Your task to perform on an android device: turn on notifications settings in the gmail app Image 0: 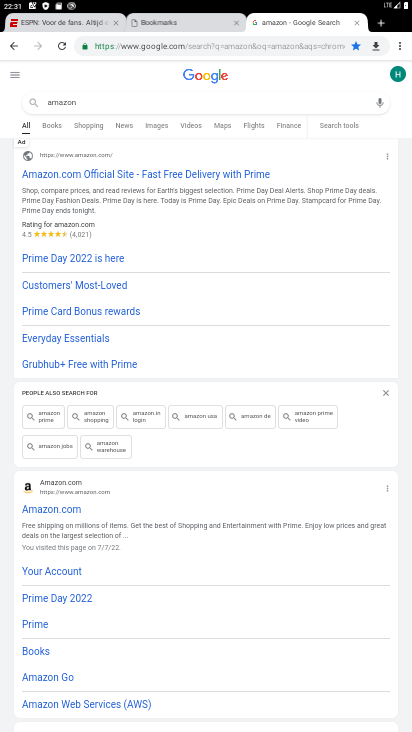
Step 0: drag from (224, 499) to (277, 136)
Your task to perform on an android device: turn on notifications settings in the gmail app Image 1: 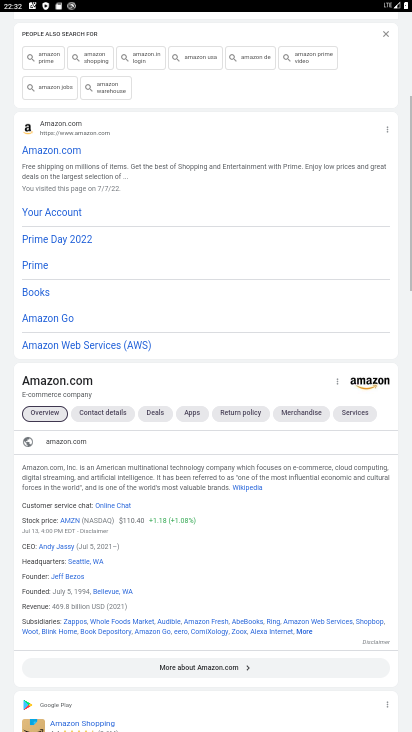
Step 1: drag from (193, 495) to (261, 170)
Your task to perform on an android device: turn on notifications settings in the gmail app Image 2: 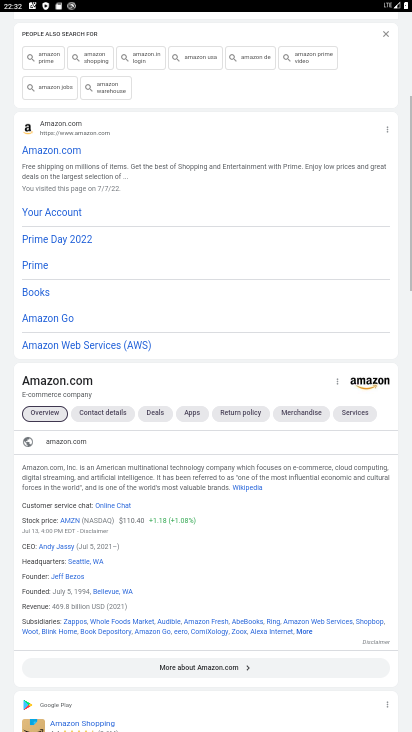
Step 2: drag from (245, 203) to (228, 727)
Your task to perform on an android device: turn on notifications settings in the gmail app Image 3: 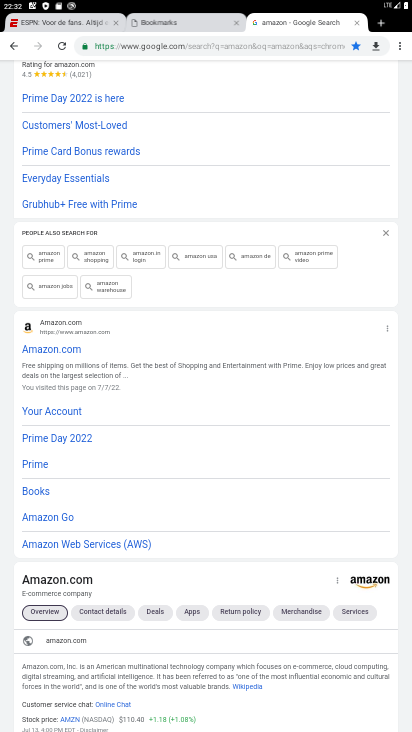
Step 3: drag from (178, 302) to (261, 660)
Your task to perform on an android device: turn on notifications settings in the gmail app Image 4: 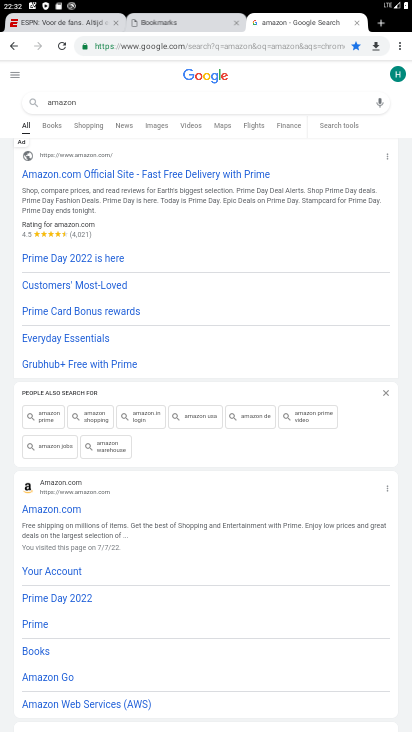
Step 4: click (399, 49)
Your task to perform on an android device: turn on notifications settings in the gmail app Image 5: 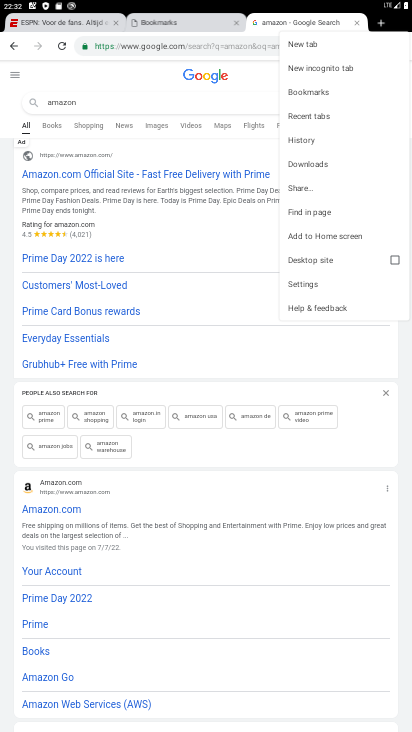
Step 5: click (318, 285)
Your task to perform on an android device: turn on notifications settings in the gmail app Image 6: 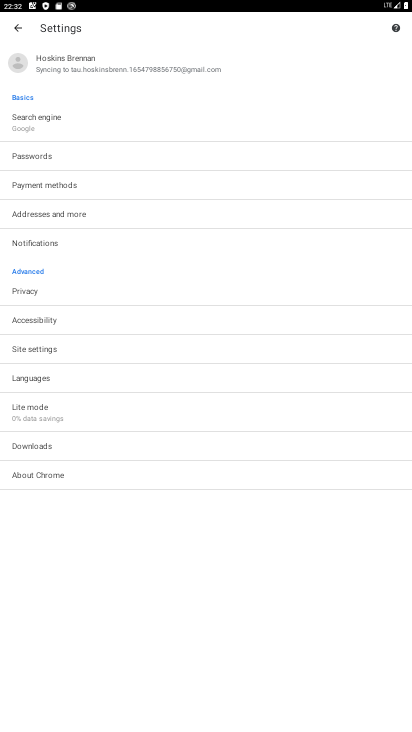
Step 6: click (37, 250)
Your task to perform on an android device: turn on notifications settings in the gmail app Image 7: 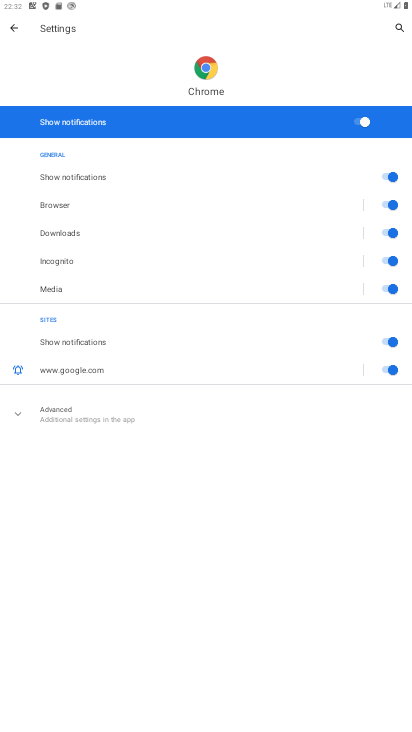
Step 7: task complete